Your task to perform on an android device: What's the US dollar exchange rate against the Canadian Dollar? Image 0: 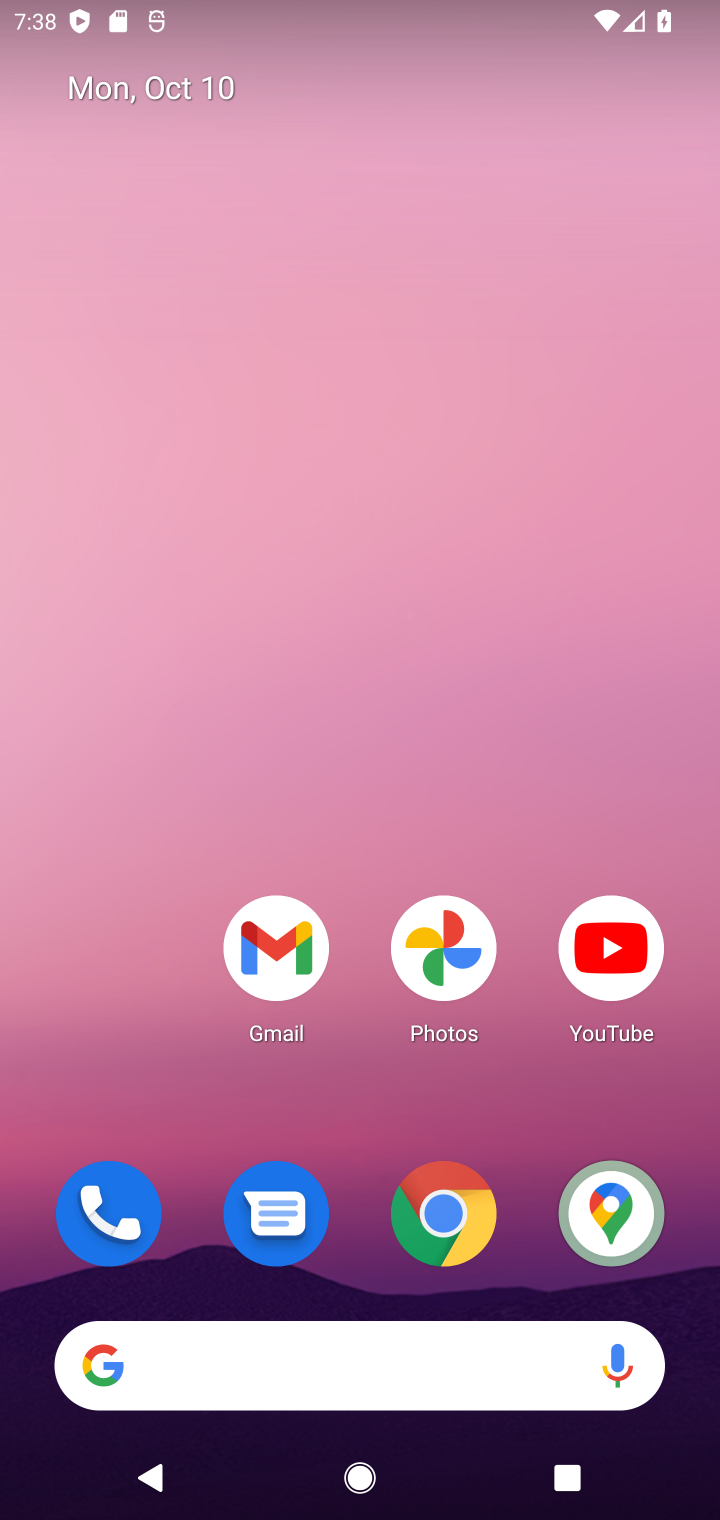
Step 0: type "What's the US dollar exchange rate against the Canadian Dollar?"
Your task to perform on an android device: What's the US dollar exchange rate against the Canadian Dollar? Image 1: 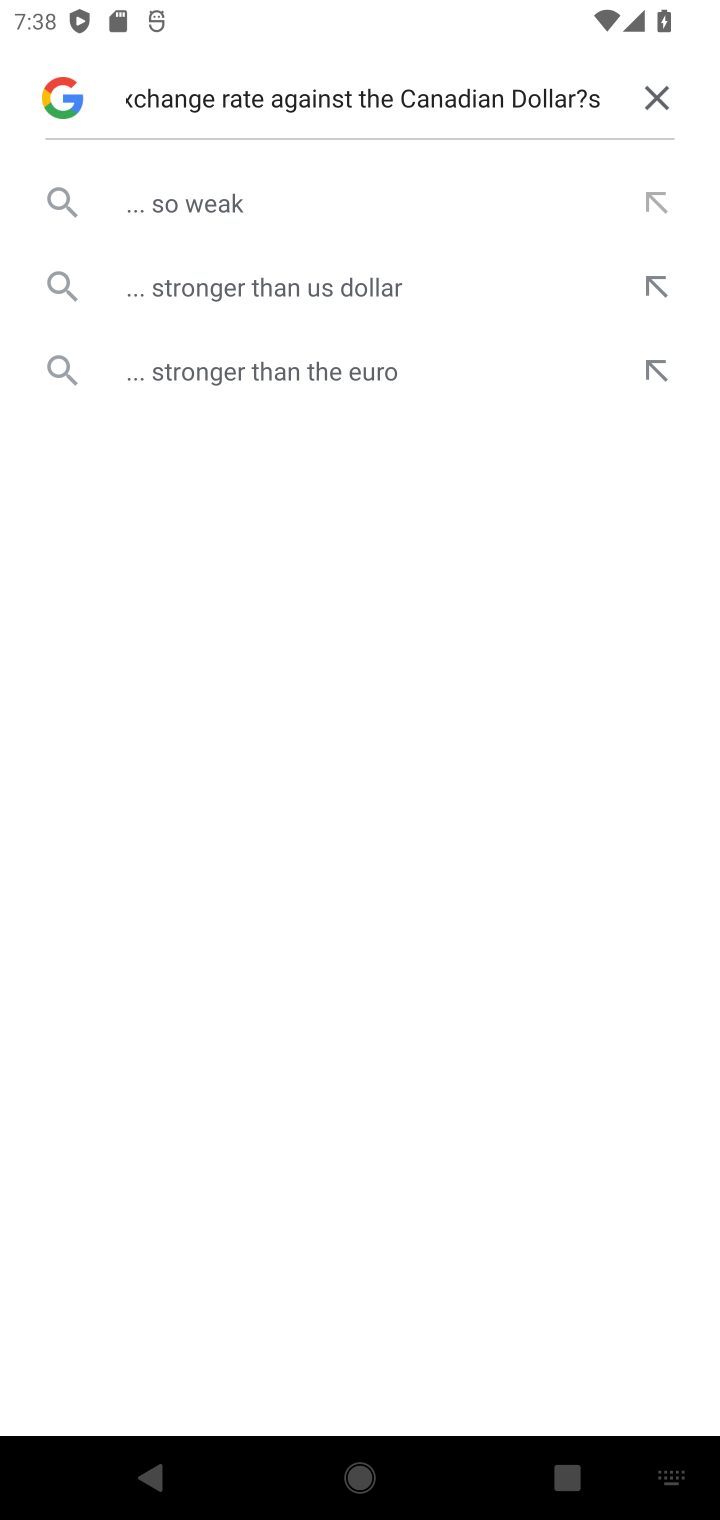
Step 1: click (658, 92)
Your task to perform on an android device: What's the US dollar exchange rate against the Canadian Dollar? Image 2: 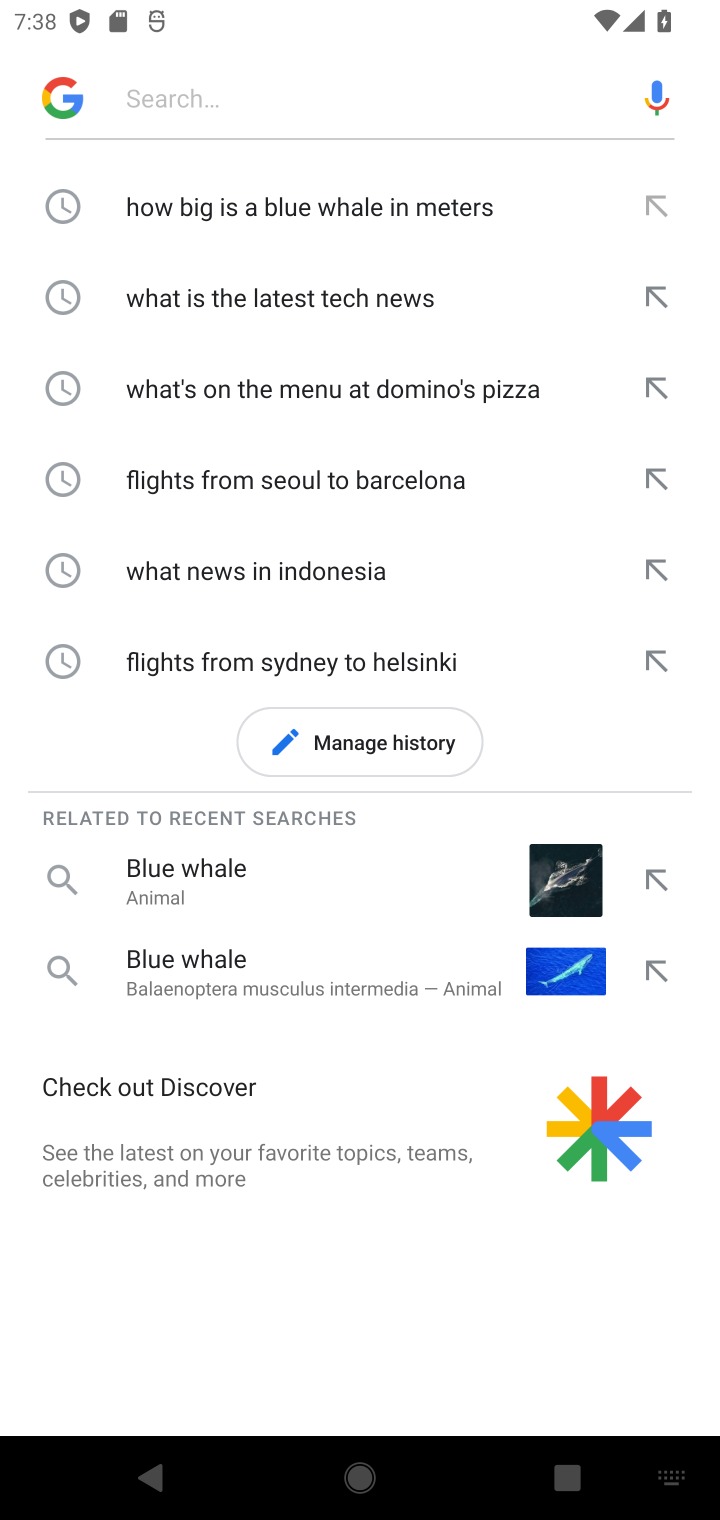
Step 2: type "What's the US dollar exchange rate against the Canadian Dollar?"
Your task to perform on an android device: What's the US dollar exchange rate against the Canadian Dollar? Image 3: 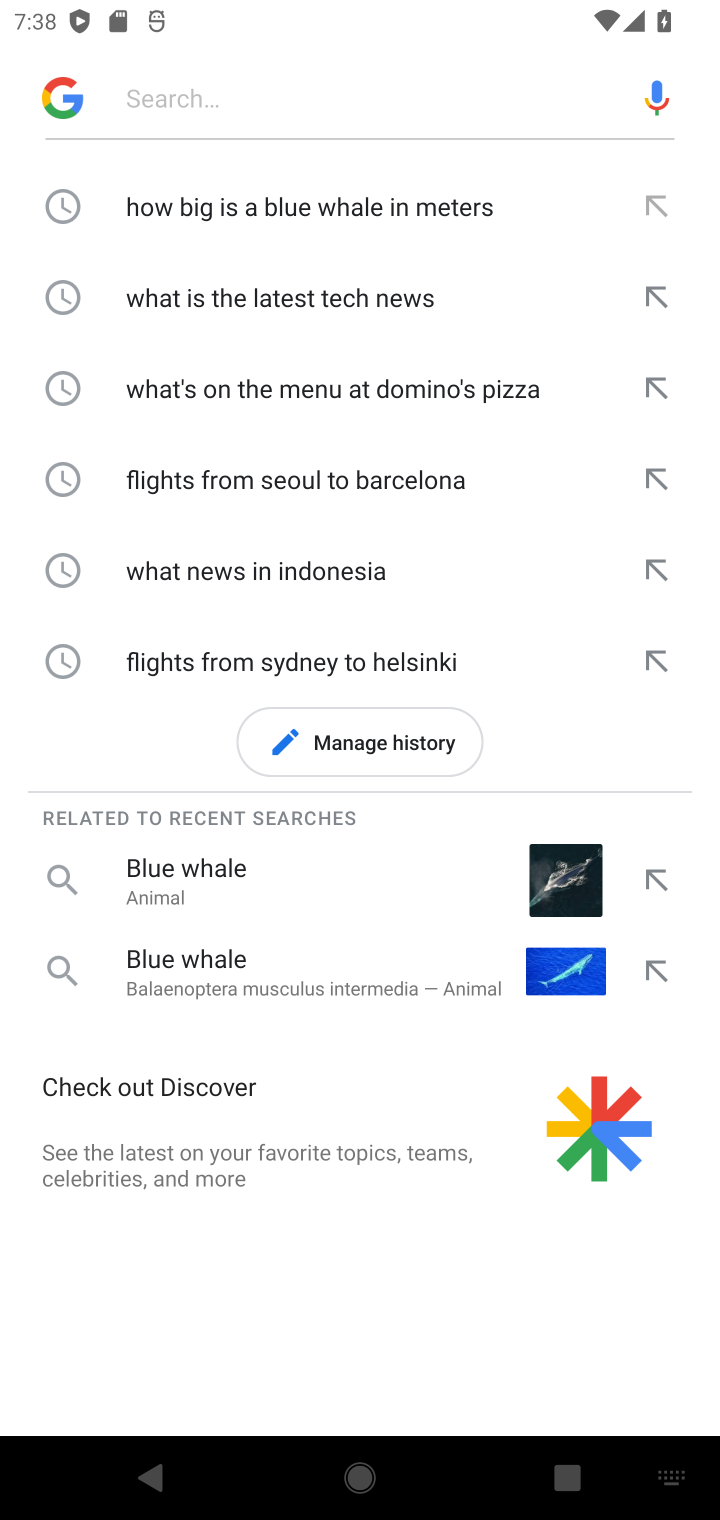
Step 3: click (323, 1344)
Your task to perform on an android device: What's the US dollar exchange rate against the Canadian Dollar? Image 4: 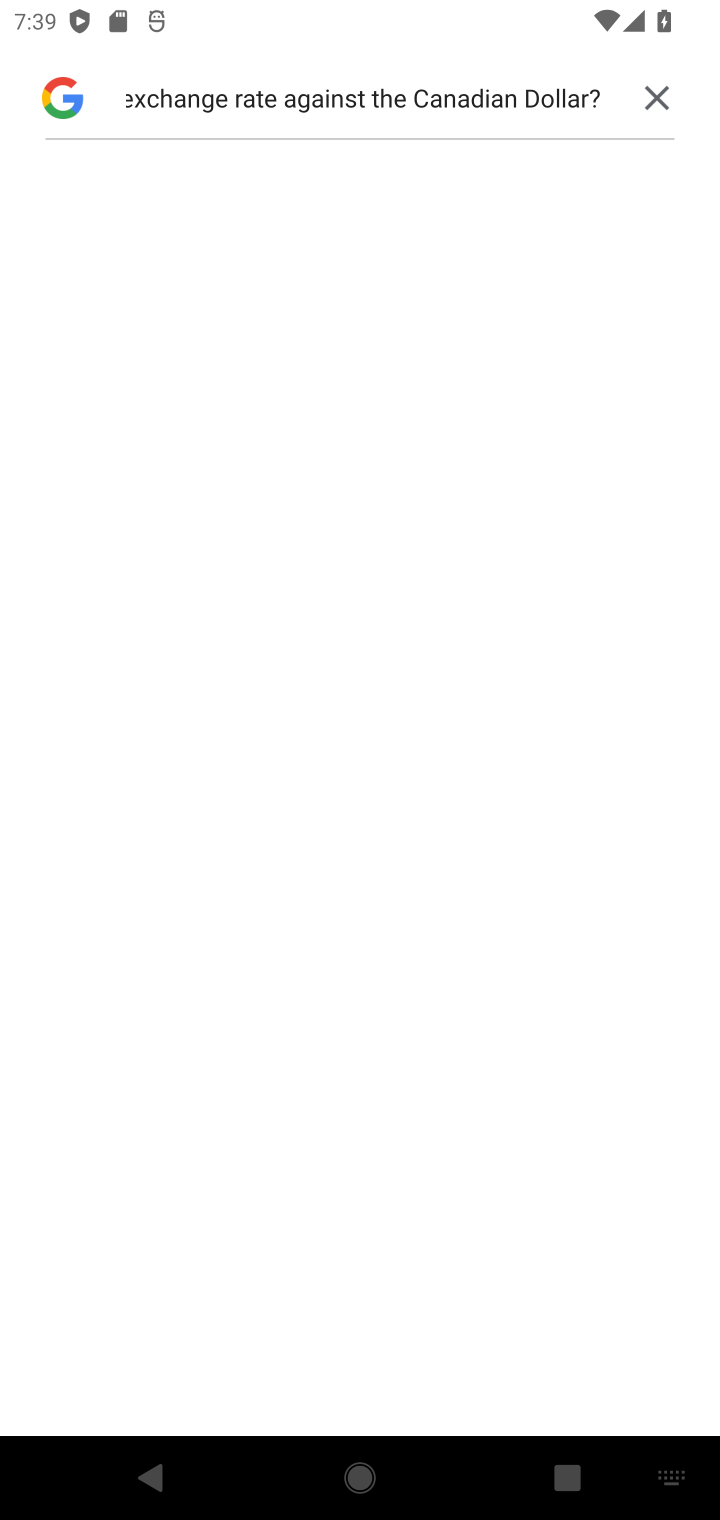
Step 4: task complete